Your task to perform on an android device: Search for pizza restaurants on Maps Image 0: 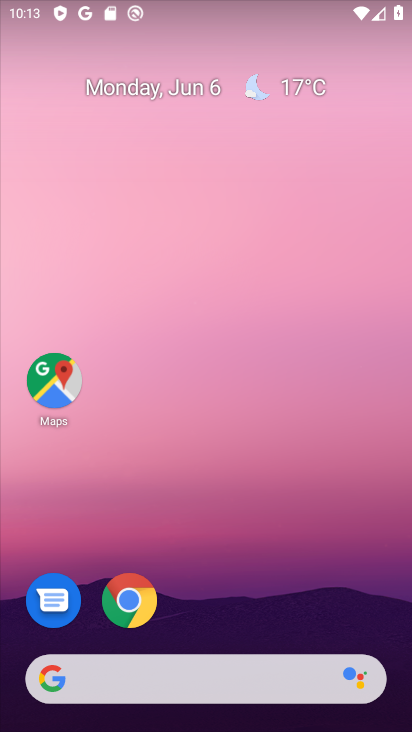
Step 0: click (40, 384)
Your task to perform on an android device: Search for pizza restaurants on Maps Image 1: 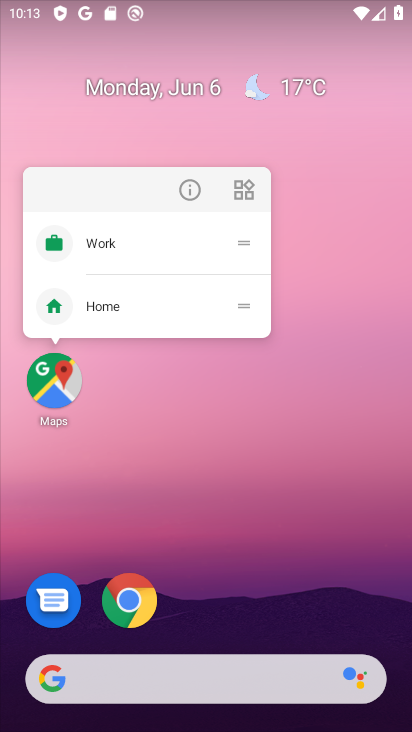
Step 1: click (40, 384)
Your task to perform on an android device: Search for pizza restaurants on Maps Image 2: 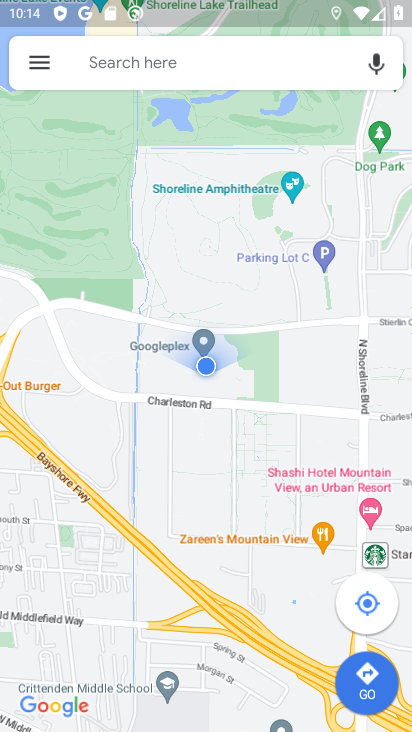
Step 2: click (158, 58)
Your task to perform on an android device: Search for pizza restaurants on Maps Image 3: 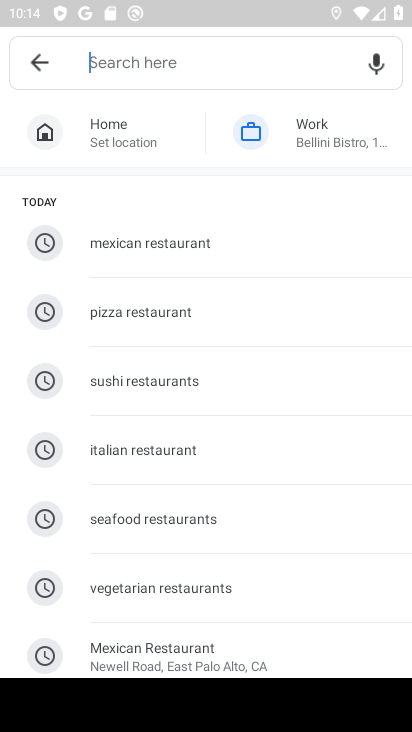
Step 3: click (195, 316)
Your task to perform on an android device: Search for pizza restaurants on Maps Image 4: 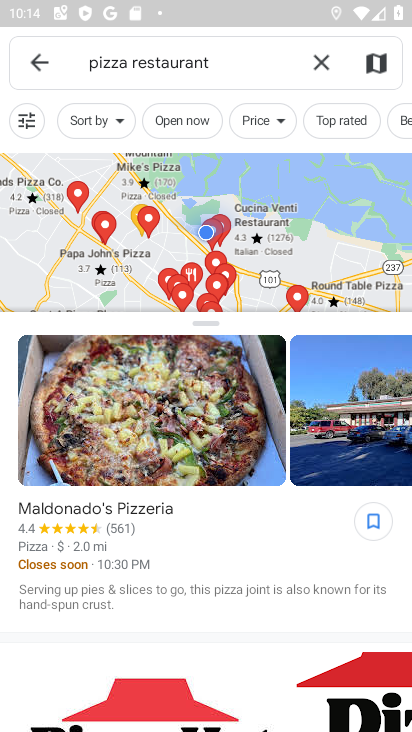
Step 4: task complete